Your task to perform on an android device: check data usage Image 0: 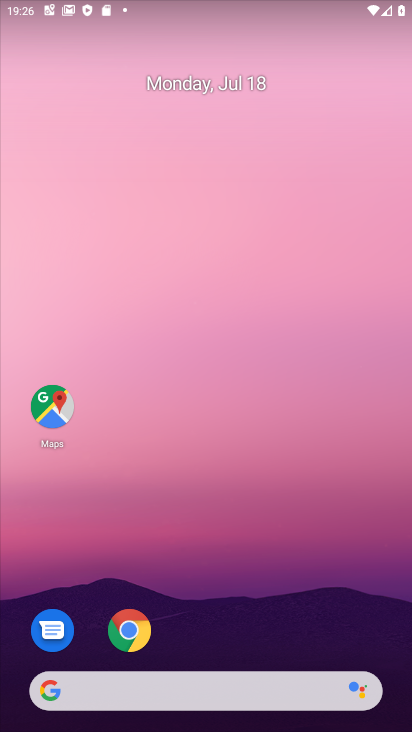
Step 0: drag from (303, 581) to (164, 19)
Your task to perform on an android device: check data usage Image 1: 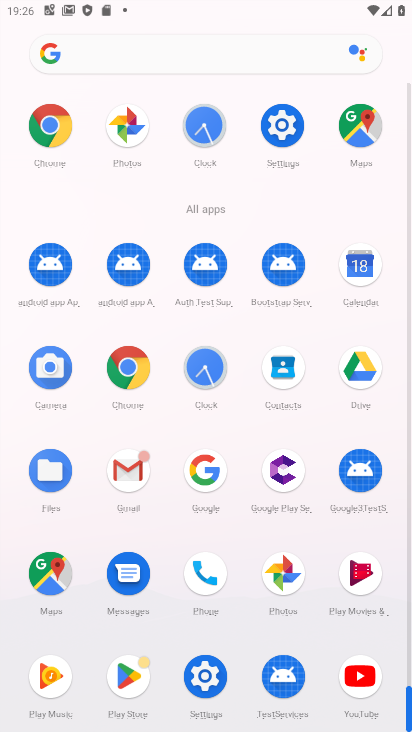
Step 1: click (291, 122)
Your task to perform on an android device: check data usage Image 2: 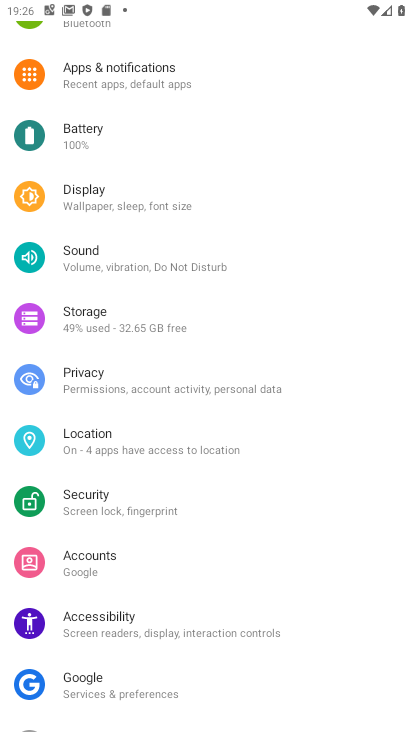
Step 2: drag from (118, 92) to (190, 540)
Your task to perform on an android device: check data usage Image 3: 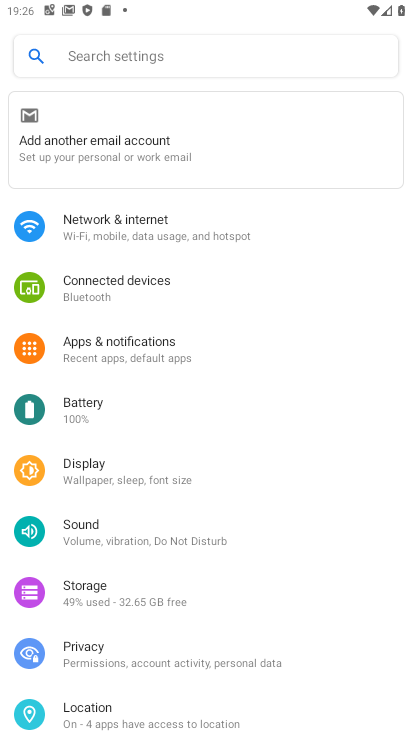
Step 3: click (87, 219)
Your task to perform on an android device: check data usage Image 4: 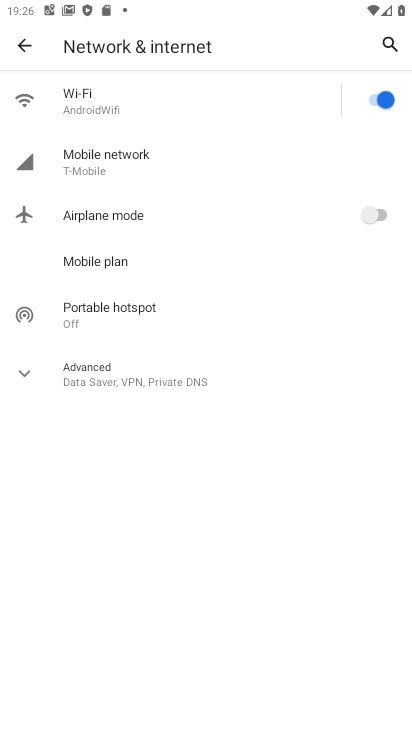
Step 4: click (87, 167)
Your task to perform on an android device: check data usage Image 5: 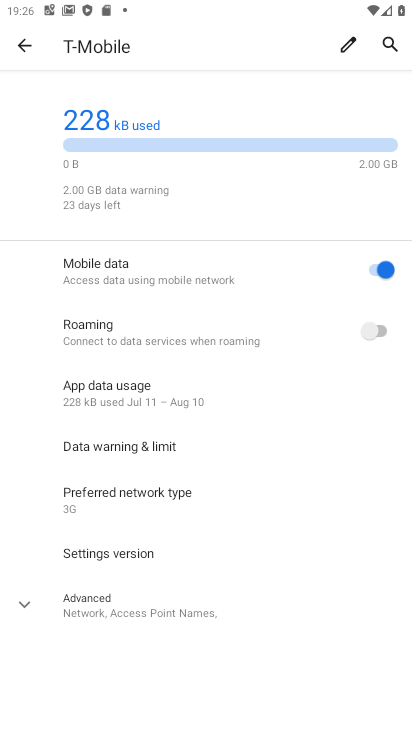
Step 5: task complete